Your task to perform on an android device: open sync settings in chrome Image 0: 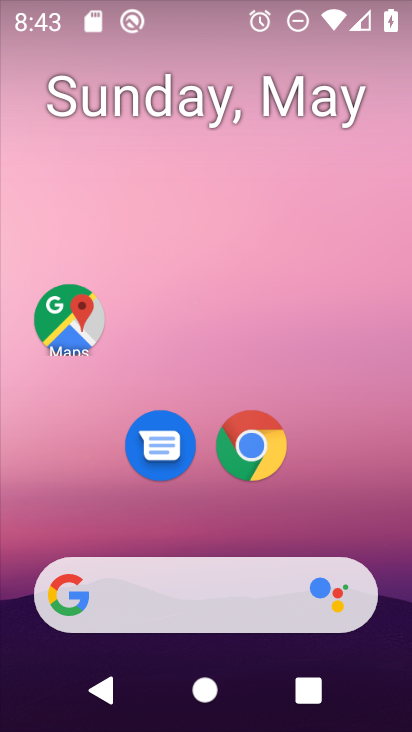
Step 0: drag from (288, 626) to (313, 80)
Your task to perform on an android device: open sync settings in chrome Image 1: 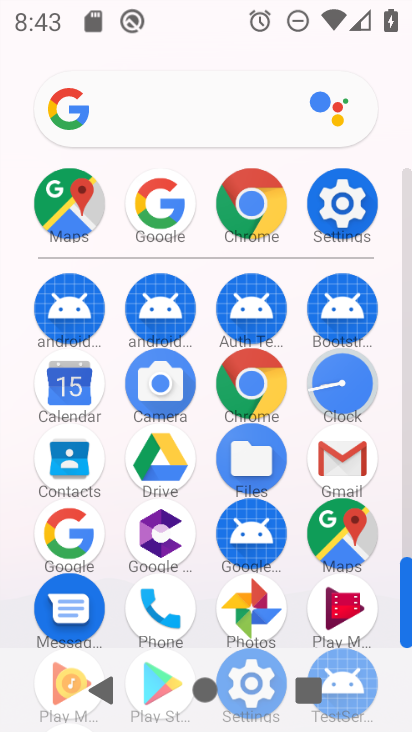
Step 1: click (261, 388)
Your task to perform on an android device: open sync settings in chrome Image 2: 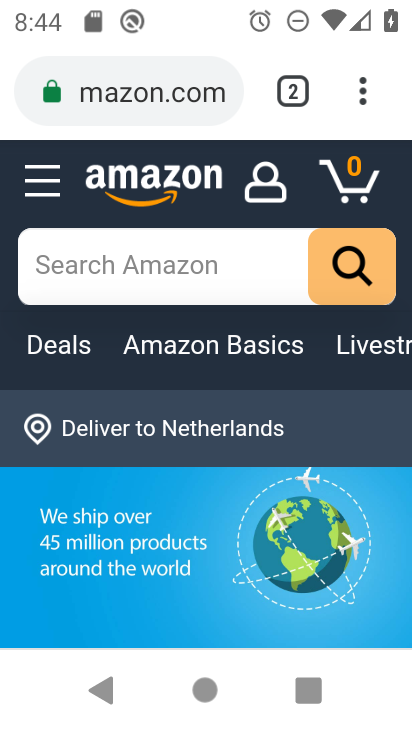
Step 2: click (366, 93)
Your task to perform on an android device: open sync settings in chrome Image 3: 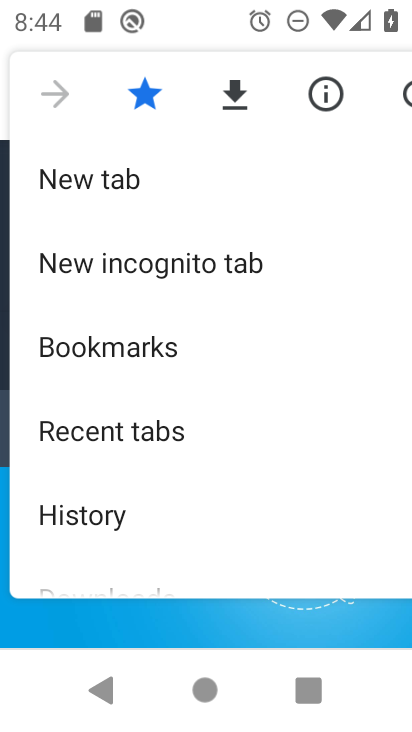
Step 3: drag from (232, 406) to (253, 107)
Your task to perform on an android device: open sync settings in chrome Image 4: 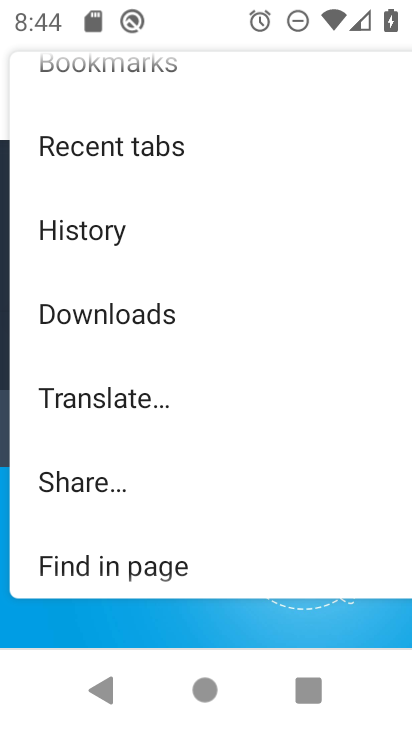
Step 4: drag from (133, 501) to (172, 225)
Your task to perform on an android device: open sync settings in chrome Image 5: 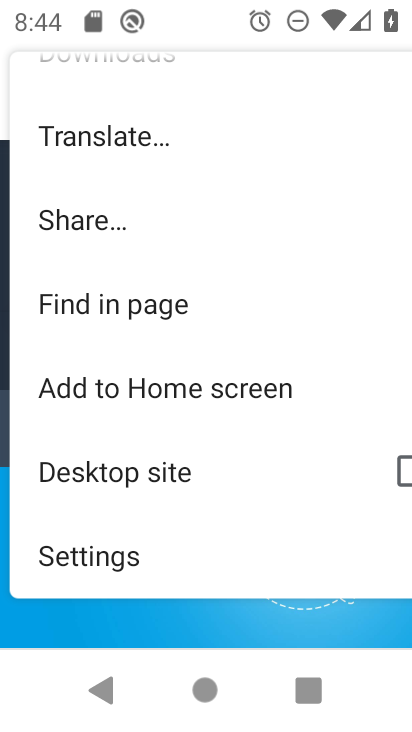
Step 5: click (146, 568)
Your task to perform on an android device: open sync settings in chrome Image 6: 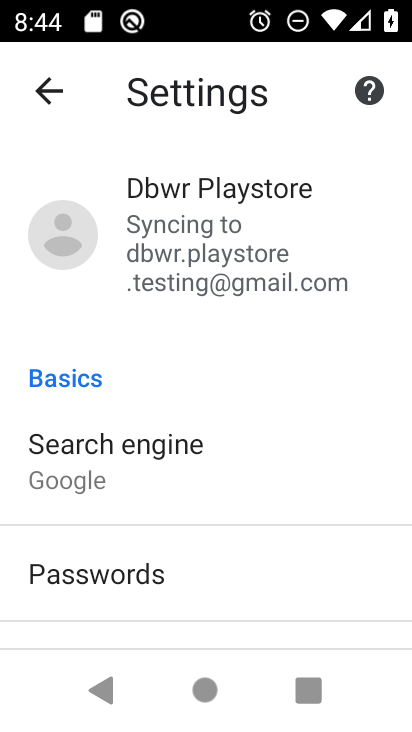
Step 6: click (262, 244)
Your task to perform on an android device: open sync settings in chrome Image 7: 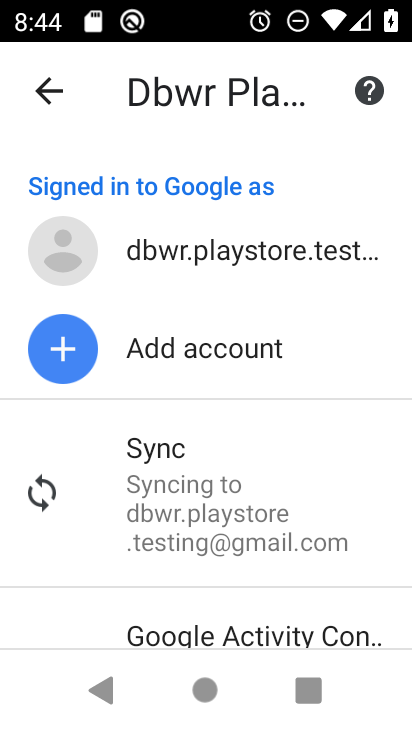
Step 7: click (245, 459)
Your task to perform on an android device: open sync settings in chrome Image 8: 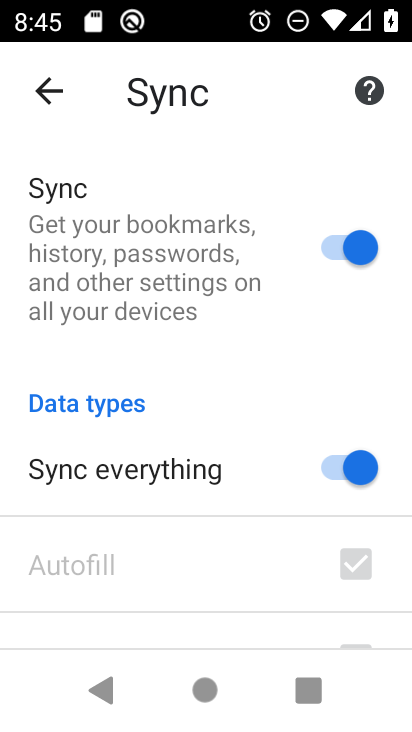
Step 8: task complete